Your task to perform on an android device: Search for usb-a to usb-b on newegg.com, select the first entry, add it to the cart, then select checkout. Image 0: 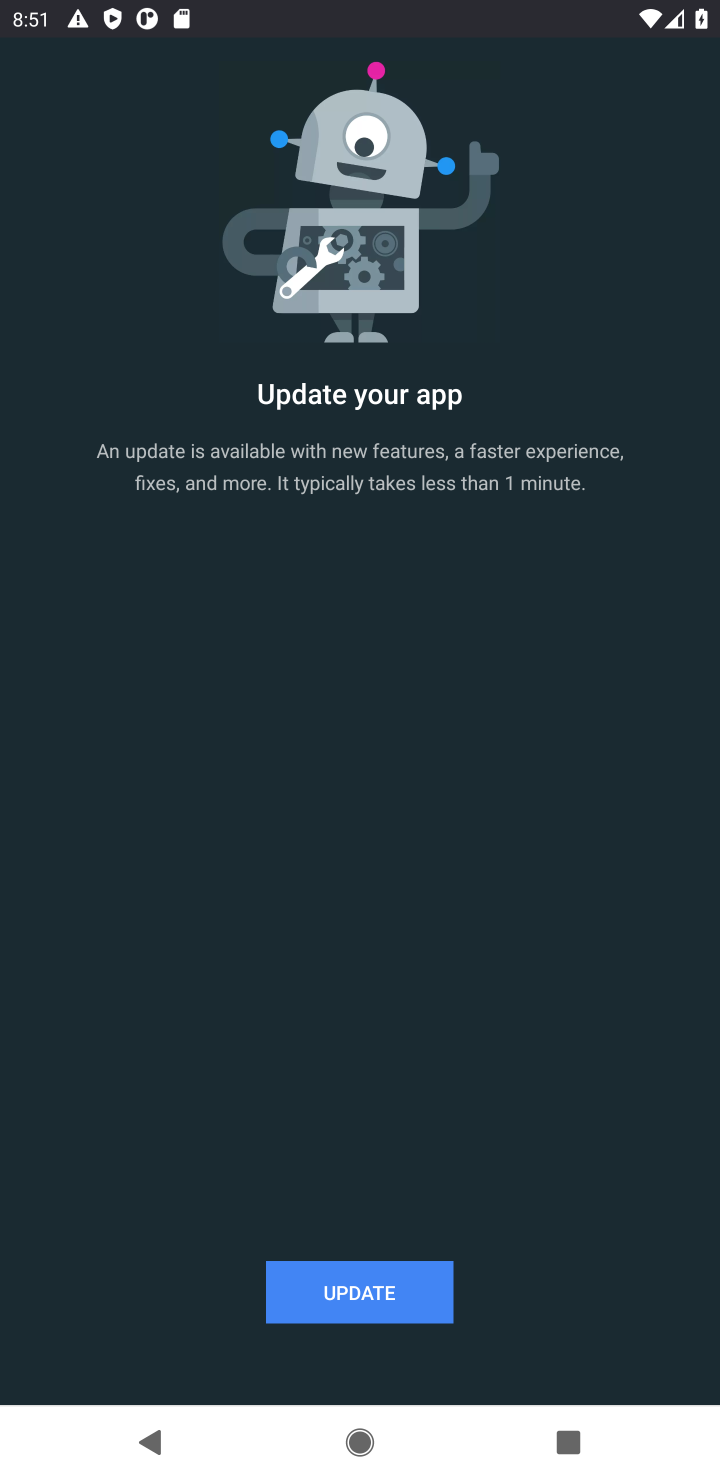
Step 0: press home button
Your task to perform on an android device: Search for usb-a to usb-b on newegg.com, select the first entry, add it to the cart, then select checkout. Image 1: 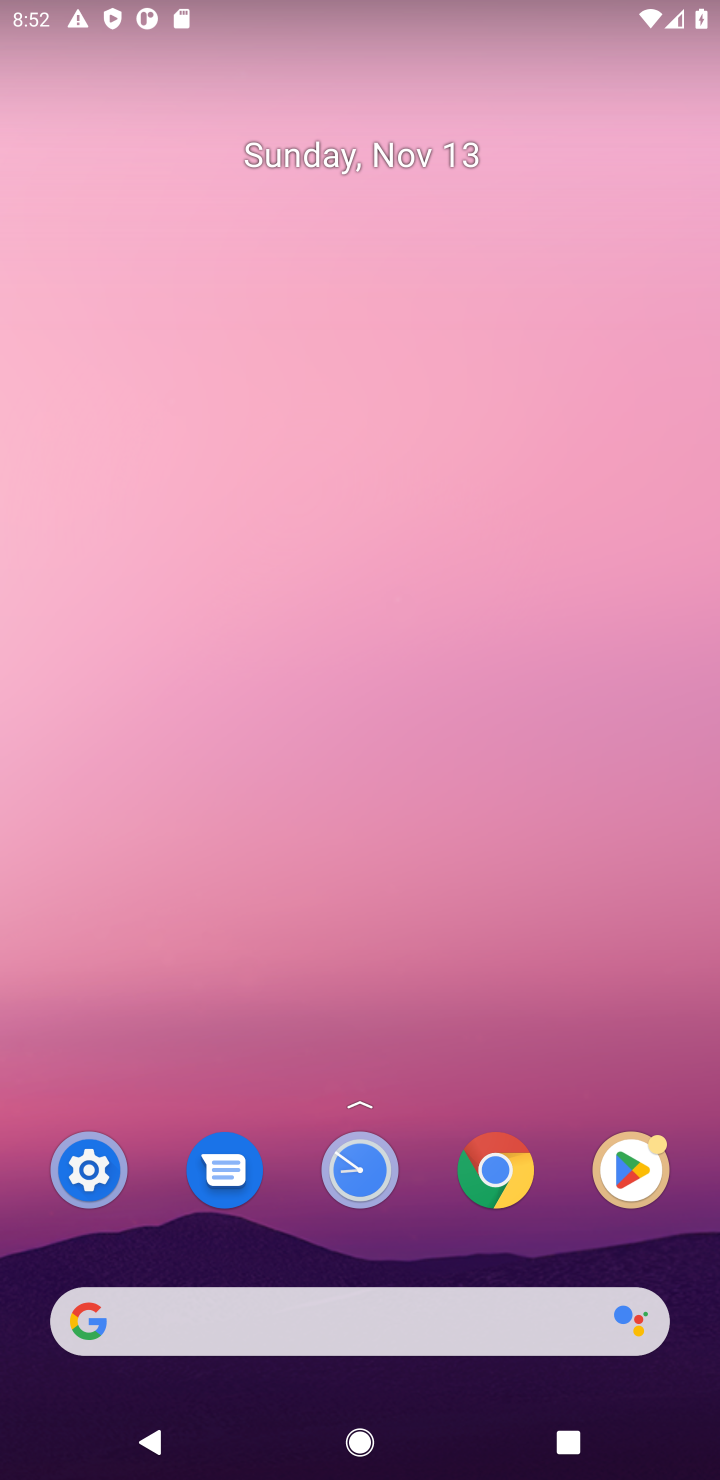
Step 1: click (293, 1340)
Your task to perform on an android device: Search for usb-a to usb-b on newegg.com, select the first entry, add it to the cart, then select checkout. Image 2: 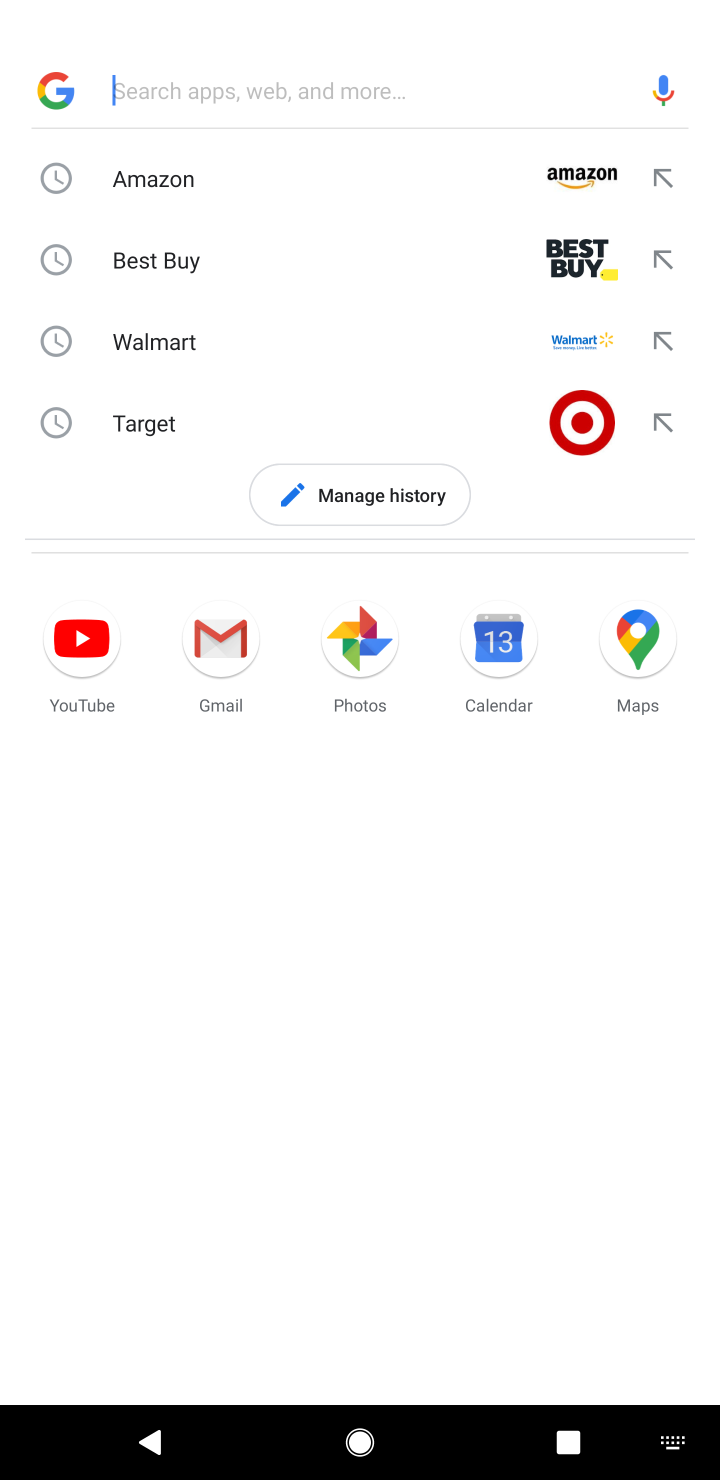
Step 2: type "newegg.com"
Your task to perform on an android device: Search for usb-a to usb-b on newegg.com, select the first entry, add it to the cart, then select checkout. Image 3: 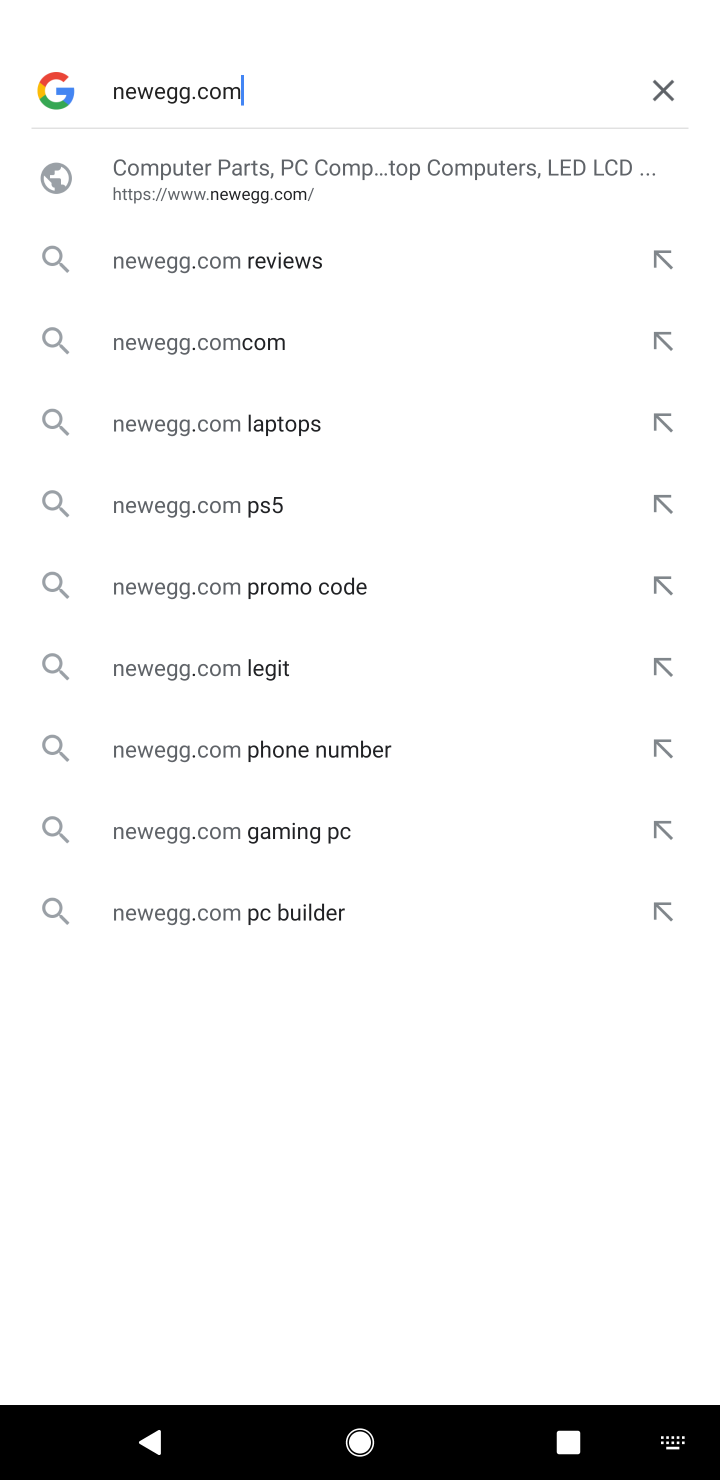
Step 3: click (125, 186)
Your task to perform on an android device: Search for usb-a to usb-b on newegg.com, select the first entry, add it to the cart, then select checkout. Image 4: 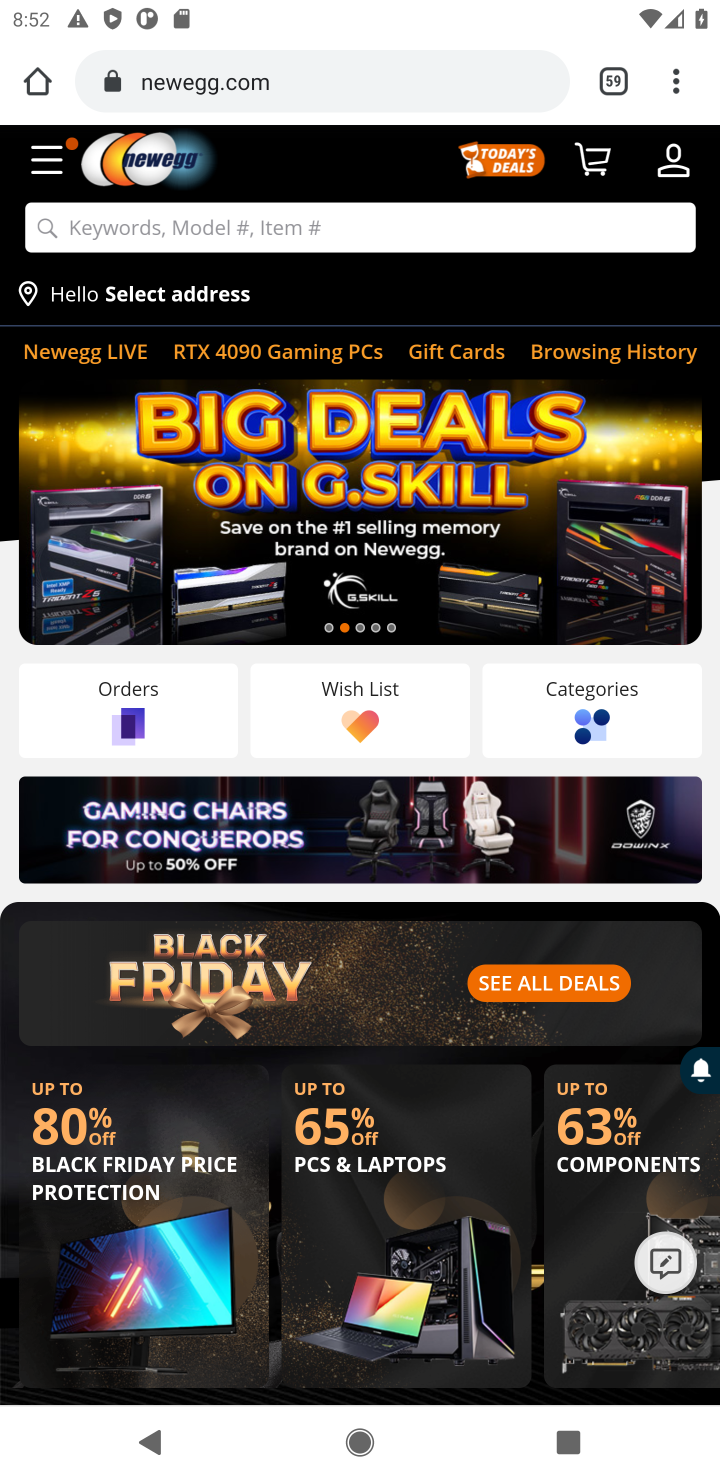
Step 4: click (229, 208)
Your task to perform on an android device: Search for usb-a to usb-b on newegg.com, select the first entry, add it to the cart, then select checkout. Image 5: 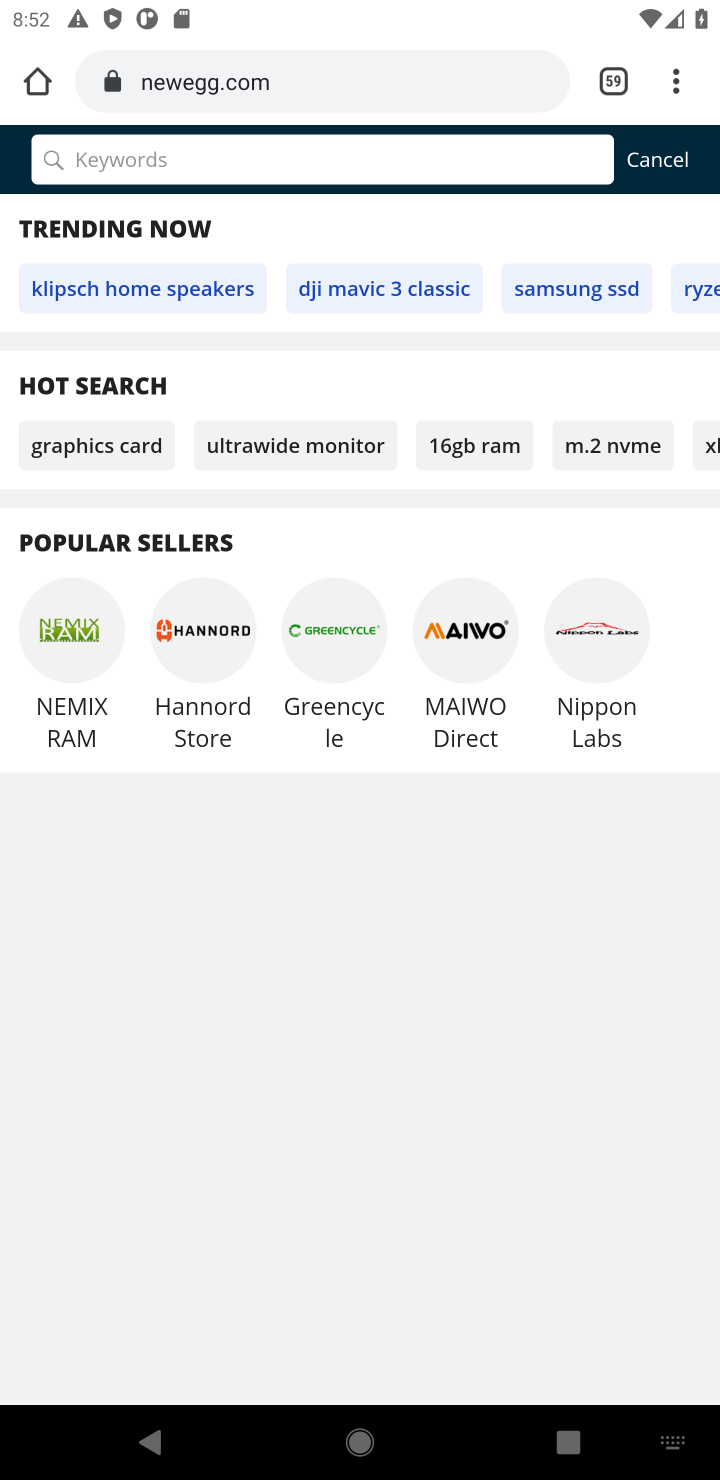
Step 5: type "usb-b"
Your task to perform on an android device: Search for usb-a to usb-b on newegg.com, select the first entry, add it to the cart, then select checkout. Image 6: 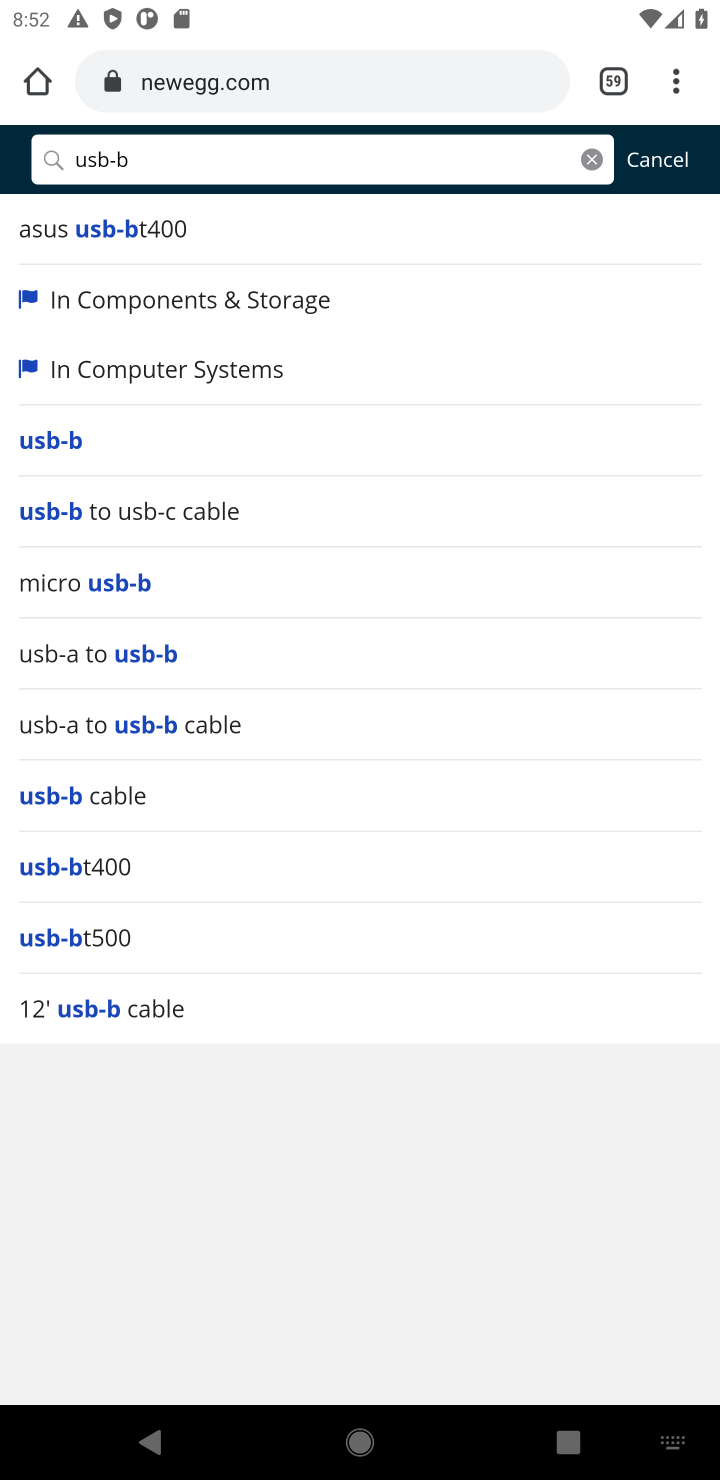
Step 6: click (140, 242)
Your task to perform on an android device: Search for usb-a to usb-b on newegg.com, select the first entry, add it to the cart, then select checkout. Image 7: 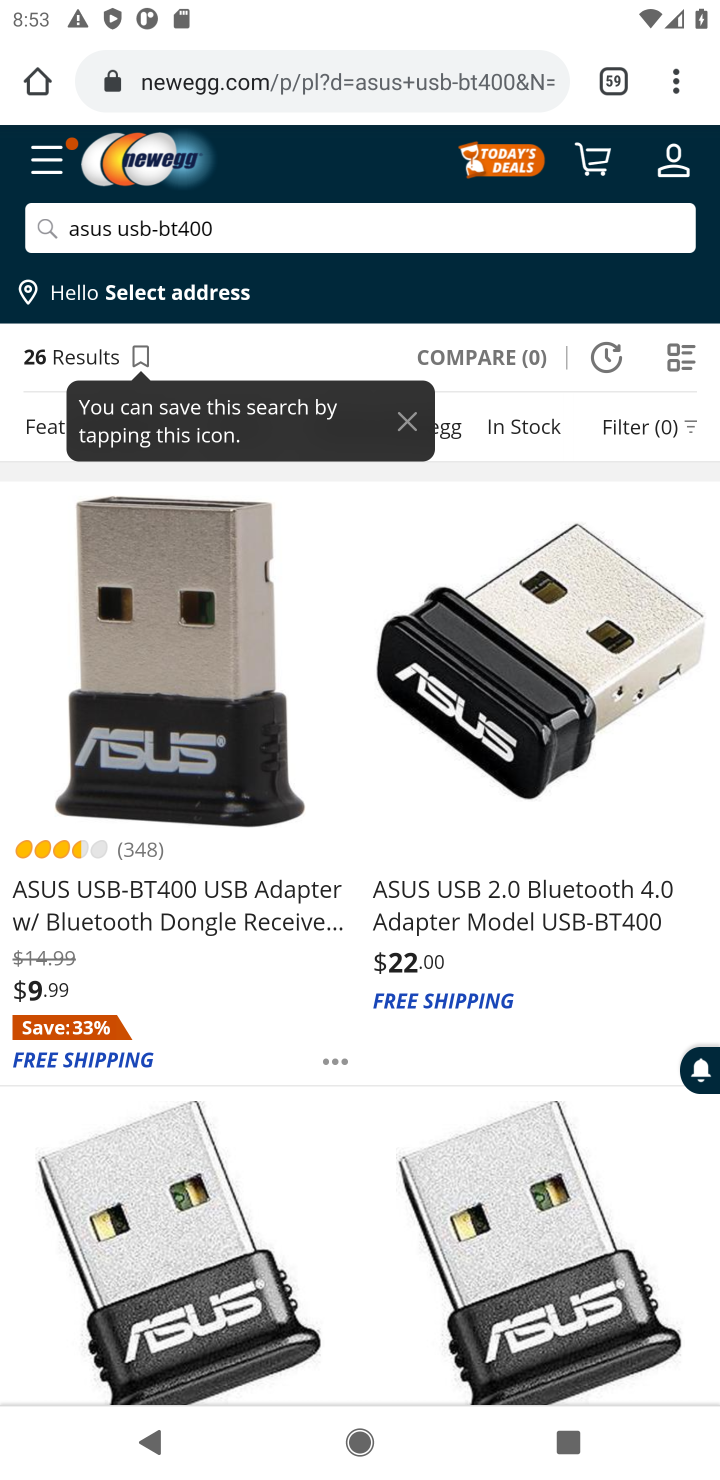
Step 7: task complete